Your task to perform on an android device: Open settings Image 0: 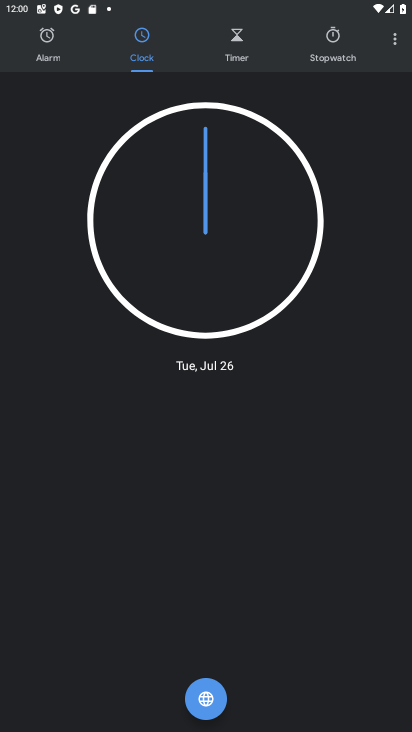
Step 0: press home button
Your task to perform on an android device: Open settings Image 1: 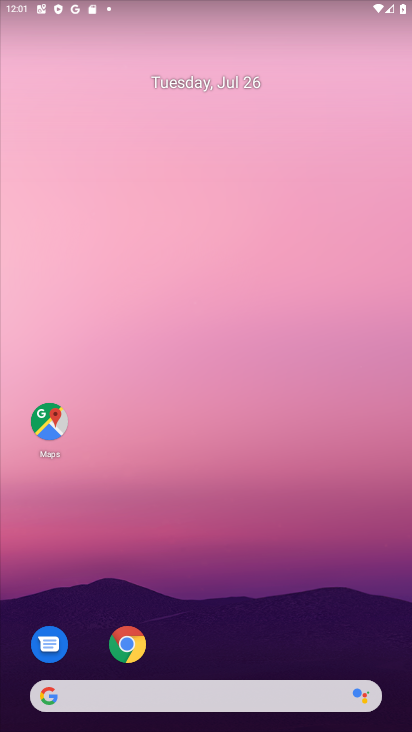
Step 1: drag from (253, 97) to (241, 2)
Your task to perform on an android device: Open settings Image 2: 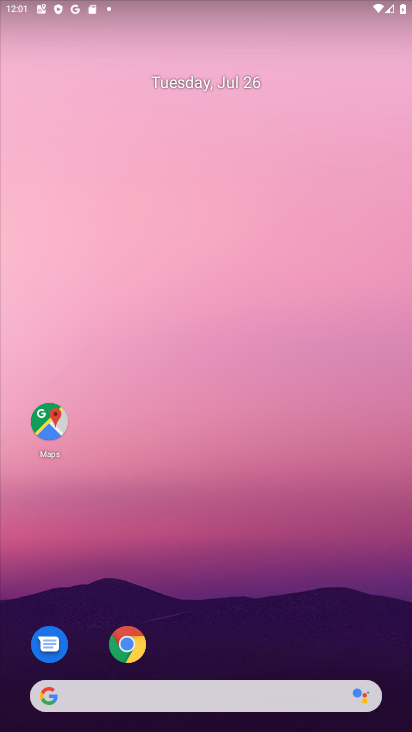
Step 2: drag from (243, 651) to (262, 6)
Your task to perform on an android device: Open settings Image 3: 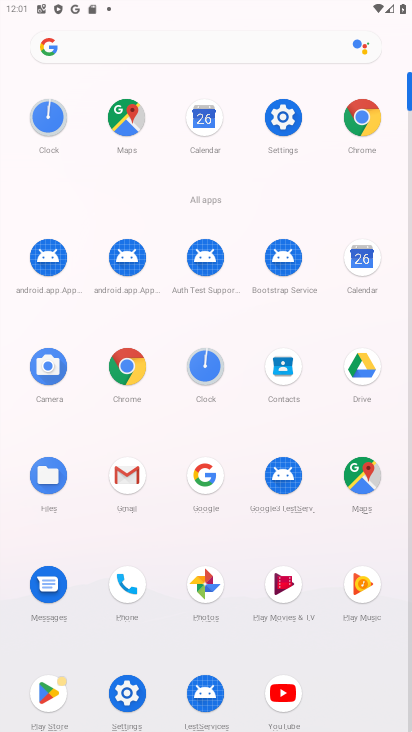
Step 3: click (287, 116)
Your task to perform on an android device: Open settings Image 4: 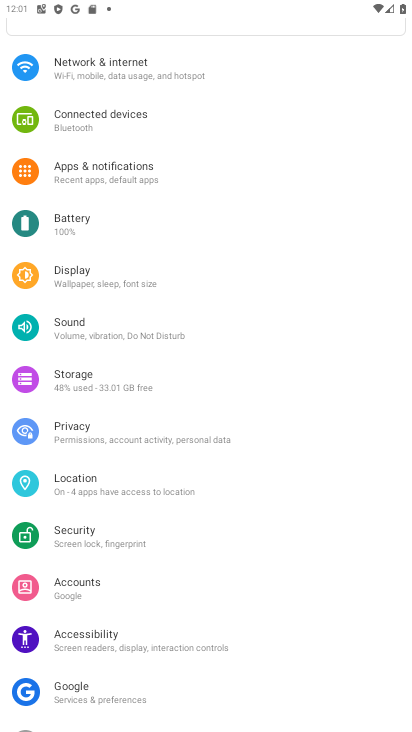
Step 4: task complete